Your task to perform on an android device: all mails in gmail Image 0: 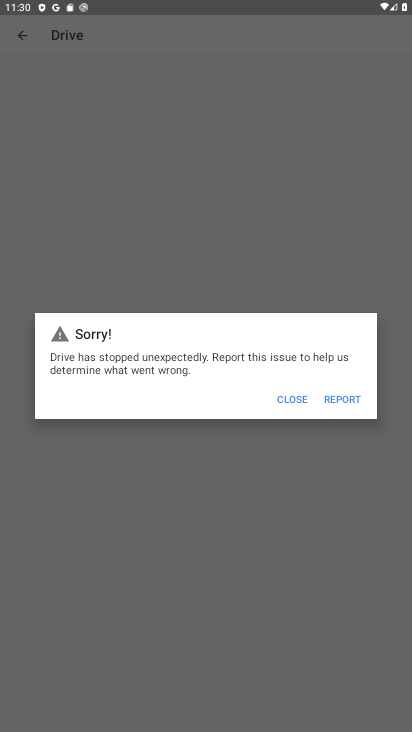
Step 0: press home button
Your task to perform on an android device: all mails in gmail Image 1: 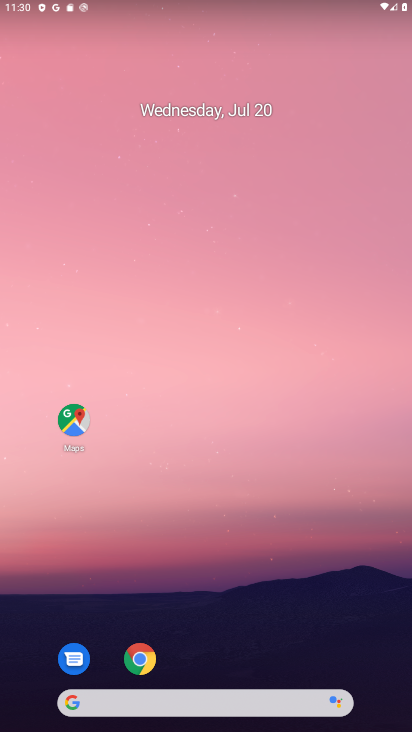
Step 1: drag from (189, 674) to (68, 0)
Your task to perform on an android device: all mails in gmail Image 2: 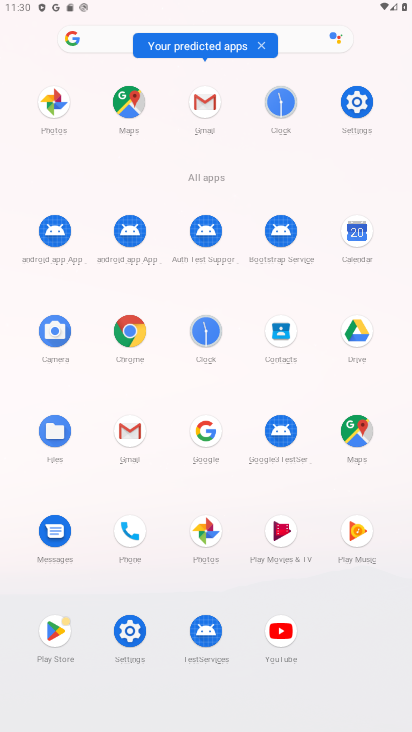
Step 2: click (203, 111)
Your task to perform on an android device: all mails in gmail Image 3: 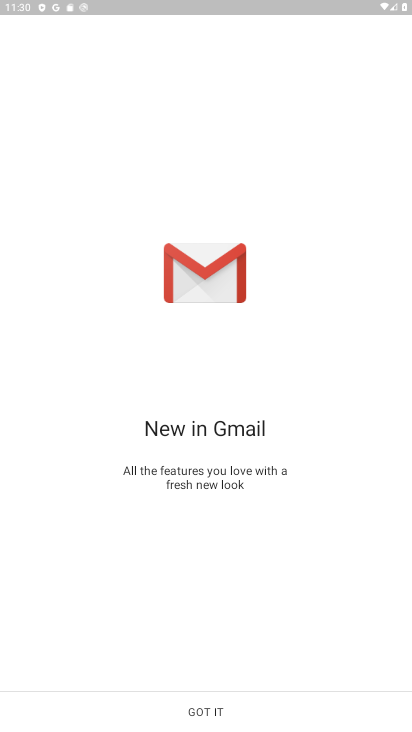
Step 3: click (159, 700)
Your task to perform on an android device: all mails in gmail Image 4: 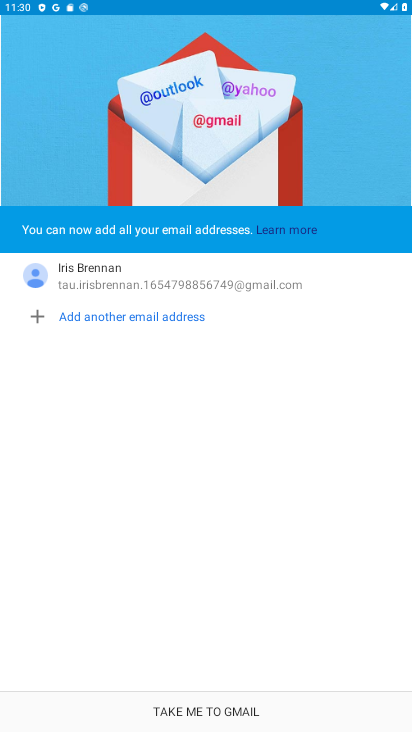
Step 4: click (159, 700)
Your task to perform on an android device: all mails in gmail Image 5: 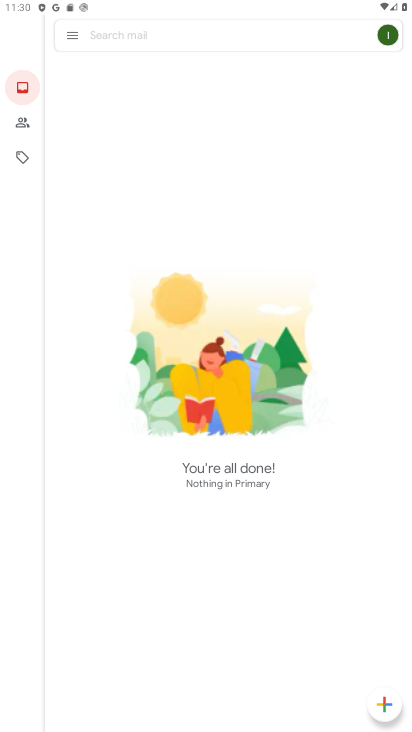
Step 5: click (60, 39)
Your task to perform on an android device: all mails in gmail Image 6: 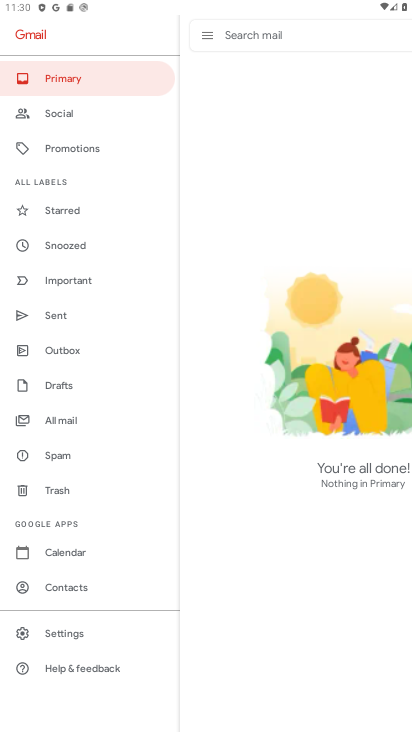
Step 6: click (77, 422)
Your task to perform on an android device: all mails in gmail Image 7: 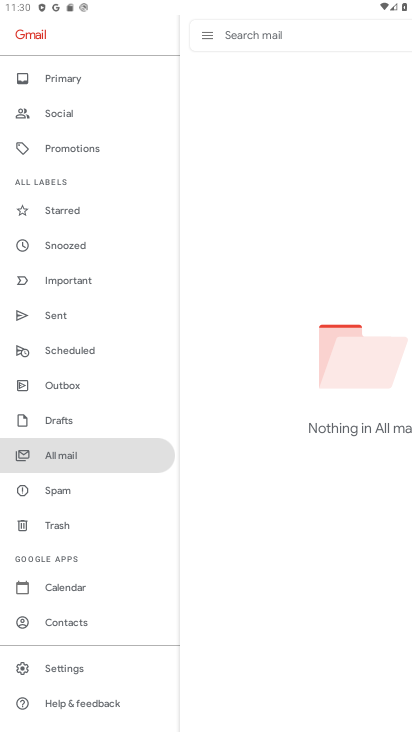
Step 7: task complete